Your task to perform on an android device: Open Android settings Image 0: 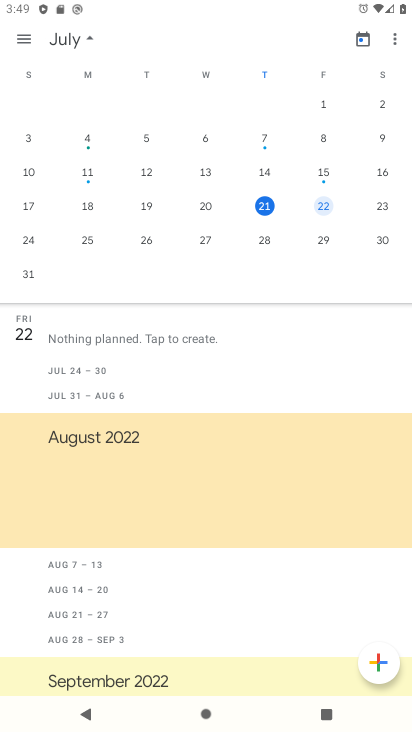
Step 0: press home button
Your task to perform on an android device: Open Android settings Image 1: 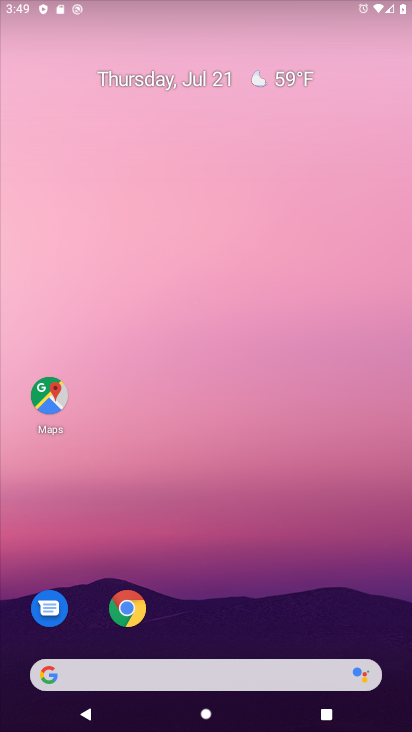
Step 1: drag from (266, 615) to (340, 9)
Your task to perform on an android device: Open Android settings Image 2: 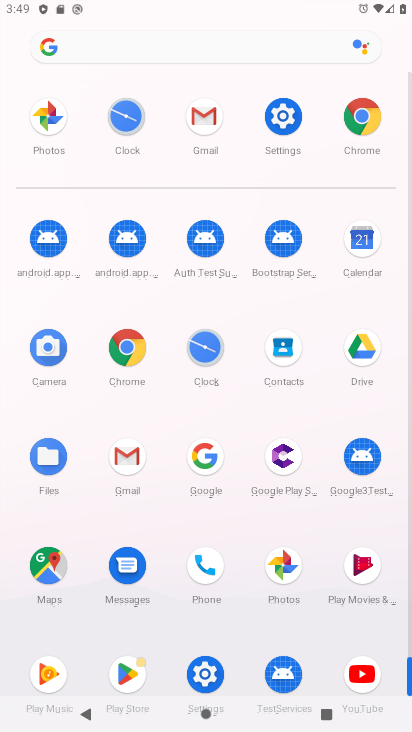
Step 2: click (288, 103)
Your task to perform on an android device: Open Android settings Image 3: 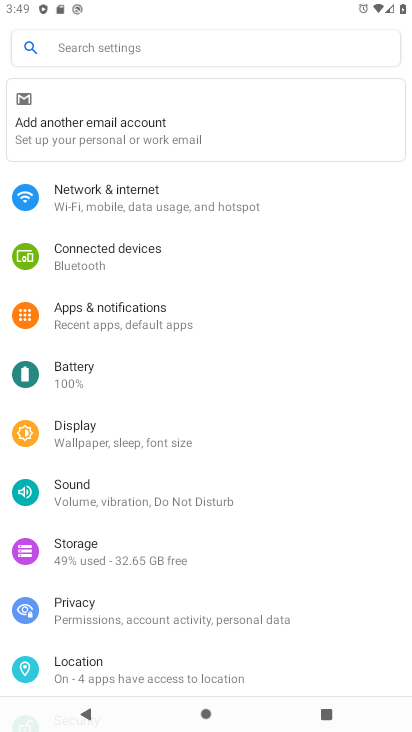
Step 3: drag from (205, 673) to (255, 99)
Your task to perform on an android device: Open Android settings Image 4: 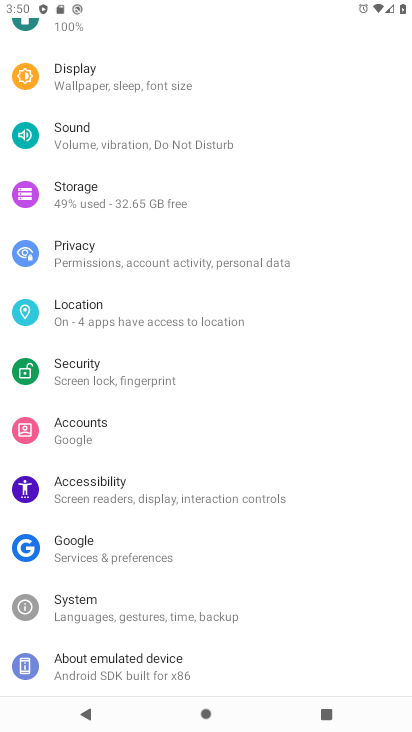
Step 4: click (204, 665)
Your task to perform on an android device: Open Android settings Image 5: 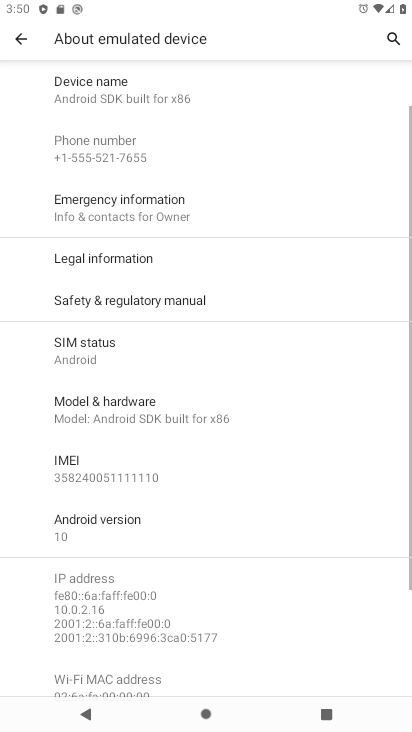
Step 5: click (124, 530)
Your task to perform on an android device: Open Android settings Image 6: 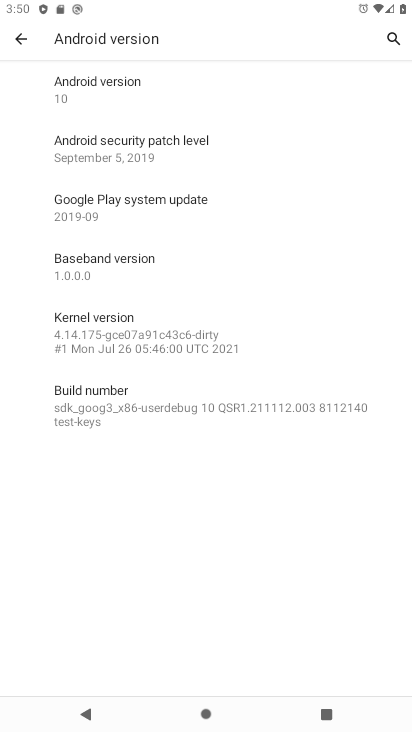
Step 6: task complete